Your task to perform on an android device: open app "Upside-Cash back on gas & food" (install if not already installed) Image 0: 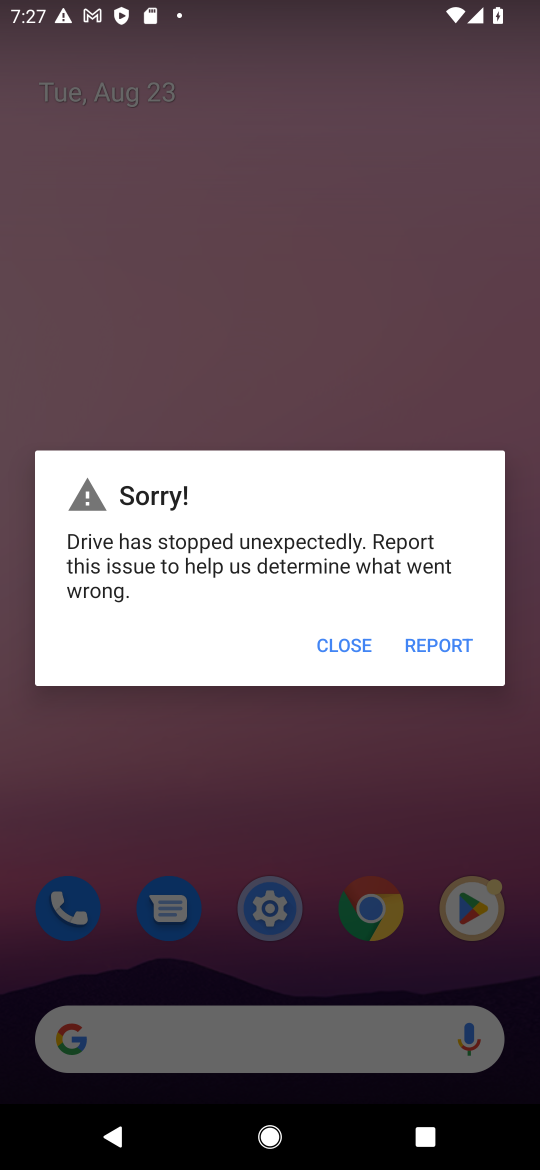
Step 0: click (328, 656)
Your task to perform on an android device: open app "Upside-Cash back on gas & food" (install if not already installed) Image 1: 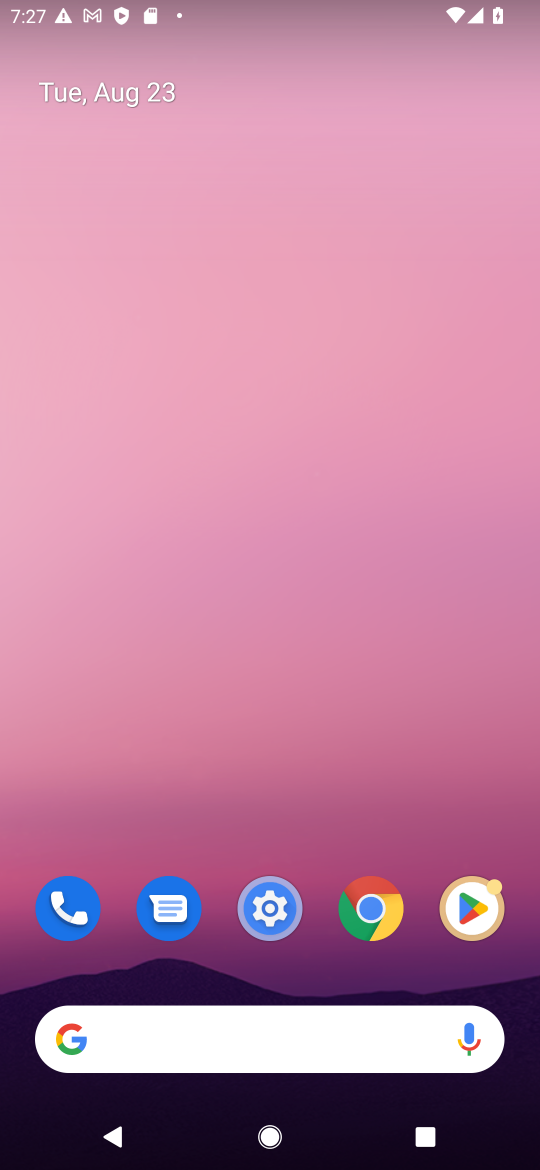
Step 1: drag from (255, 959) to (348, 267)
Your task to perform on an android device: open app "Upside-Cash back on gas & food" (install if not already installed) Image 2: 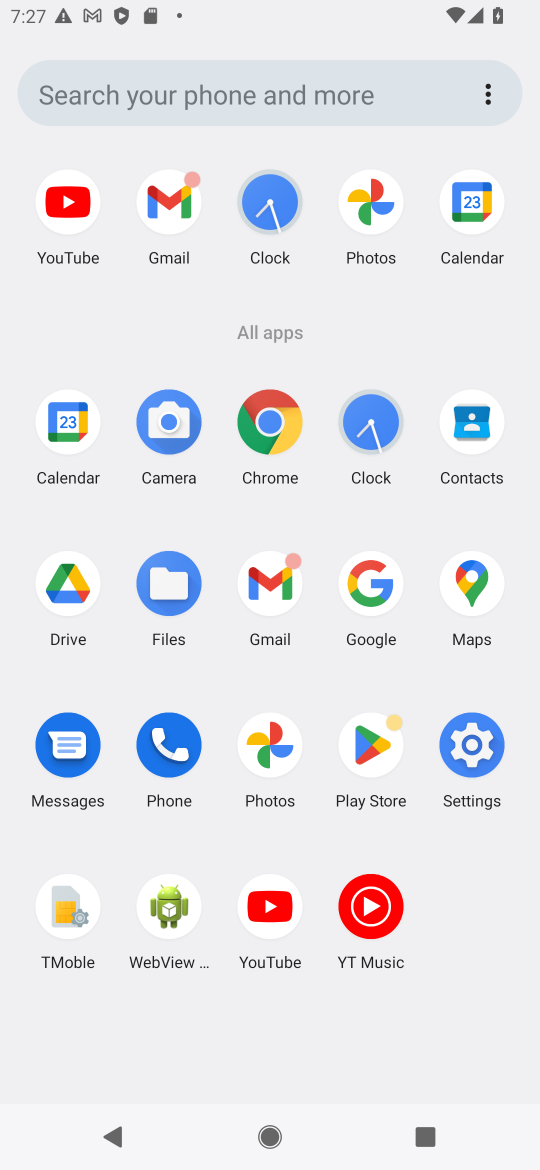
Step 2: click (362, 755)
Your task to perform on an android device: open app "Upside-Cash back on gas & food" (install if not already installed) Image 3: 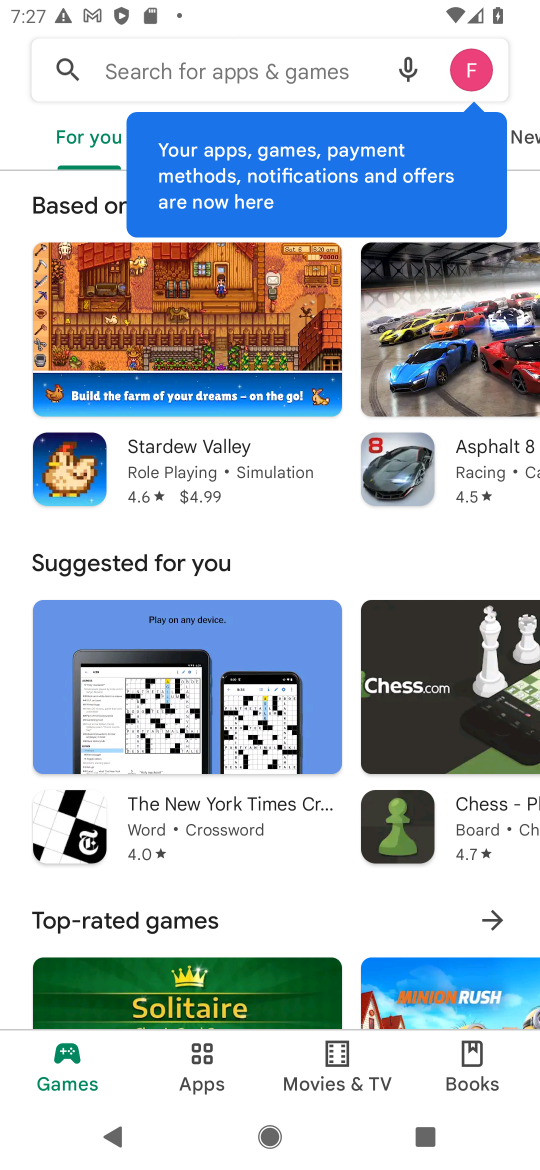
Step 3: click (298, 74)
Your task to perform on an android device: open app "Upside-Cash back on gas & food" (install if not already installed) Image 4: 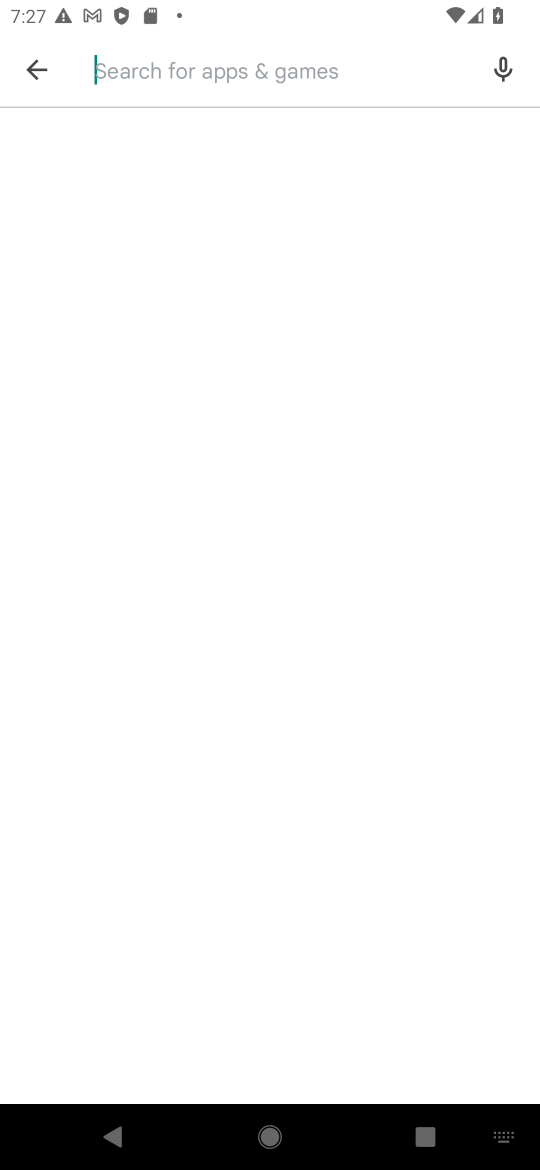
Step 4: type "Upside-Cash back on gas & food"
Your task to perform on an android device: open app "Upside-Cash back on gas & food" (install if not already installed) Image 5: 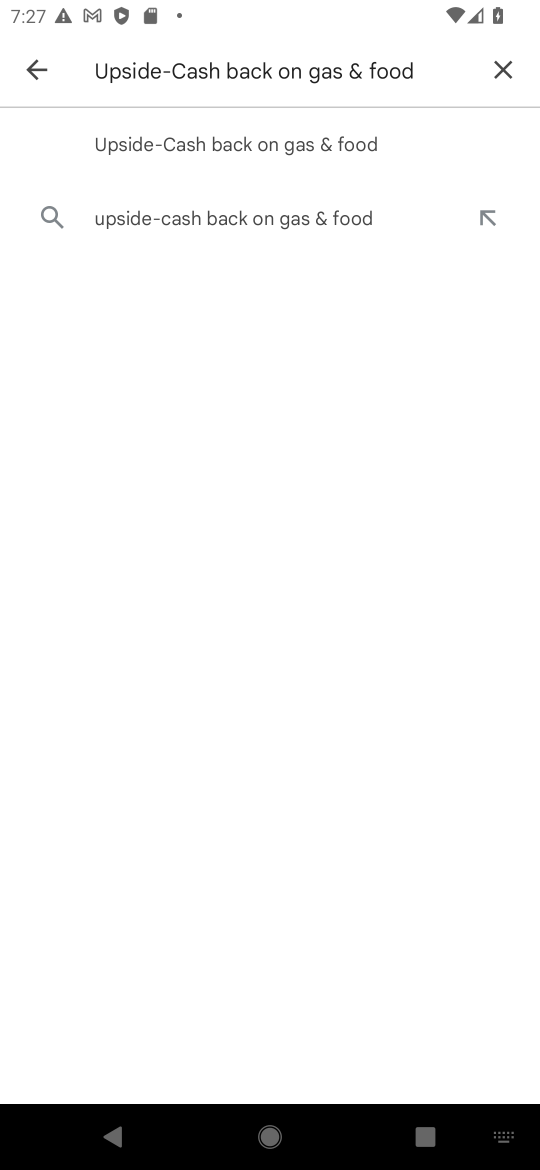
Step 5: click (196, 152)
Your task to perform on an android device: open app "Upside-Cash back on gas & food" (install if not already installed) Image 6: 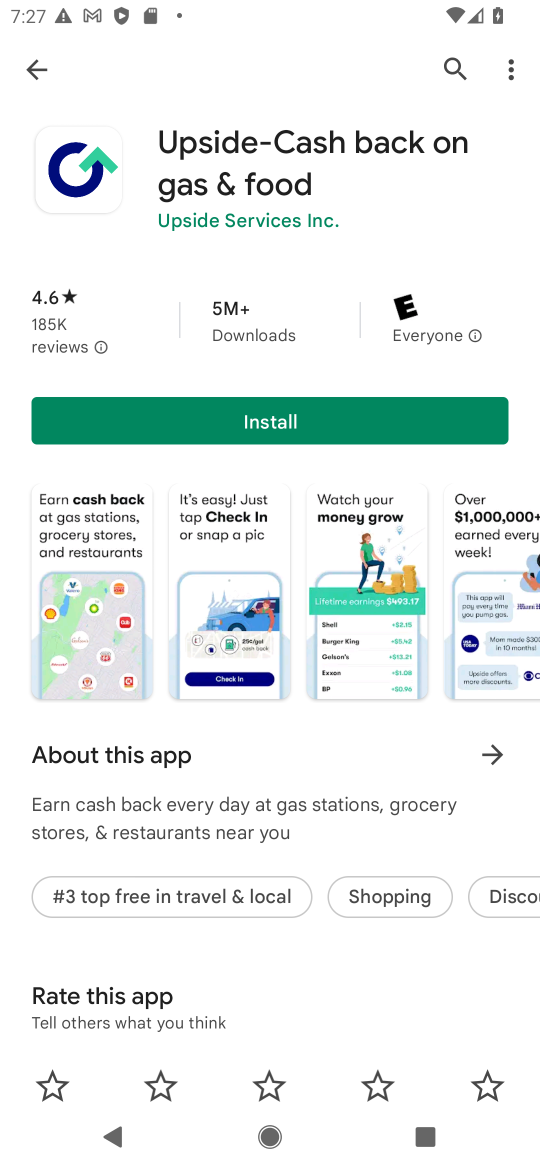
Step 6: click (245, 421)
Your task to perform on an android device: open app "Upside-Cash back on gas & food" (install if not already installed) Image 7: 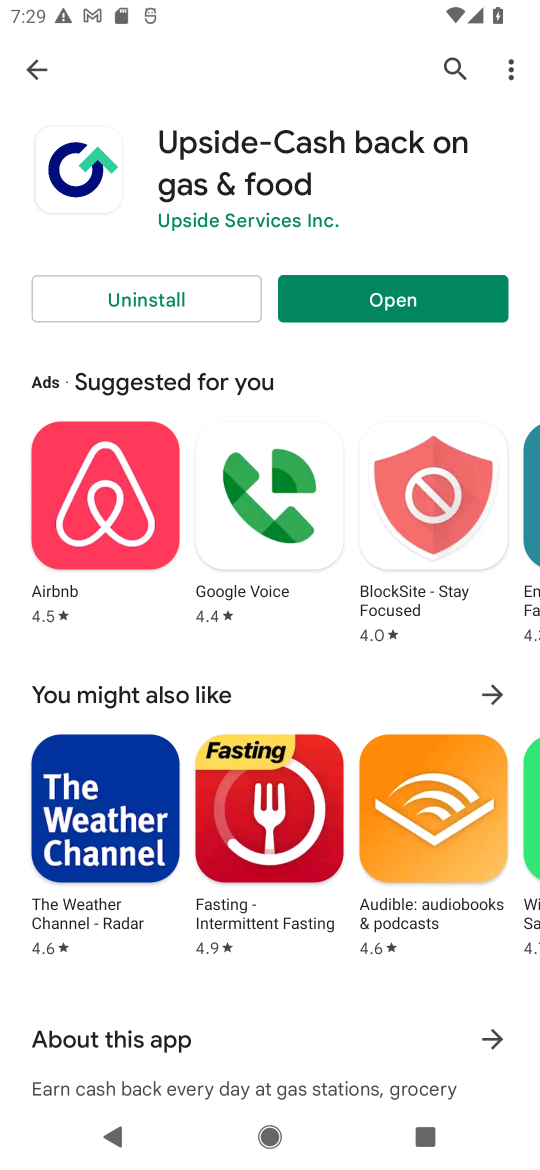
Step 7: click (396, 301)
Your task to perform on an android device: open app "Upside-Cash back on gas & food" (install if not already installed) Image 8: 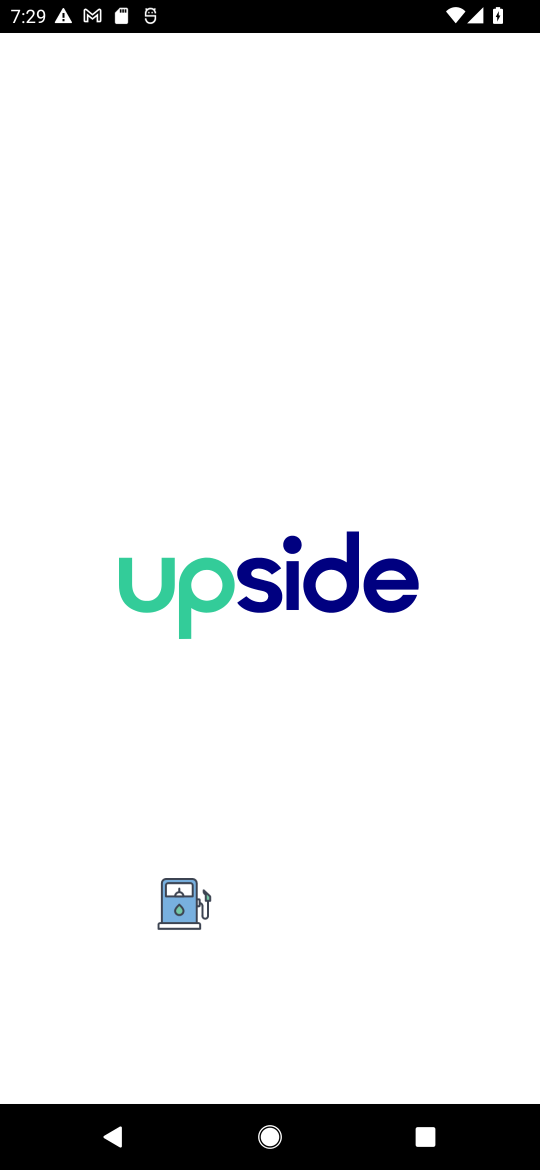
Step 8: task complete